Your task to perform on an android device: Find coffee shops on Maps Image 0: 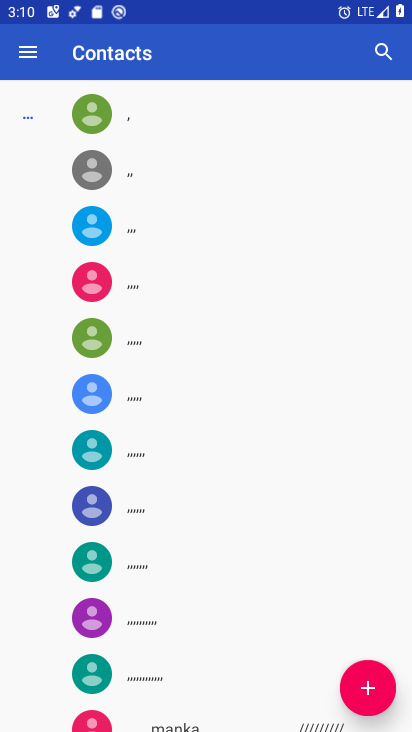
Step 0: press home button
Your task to perform on an android device: Find coffee shops on Maps Image 1: 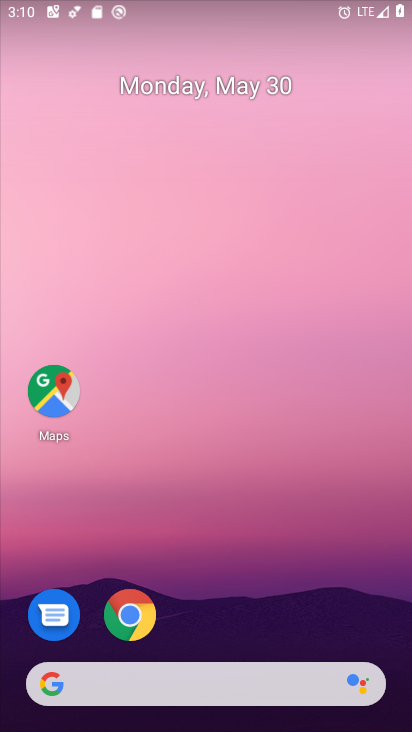
Step 1: click (51, 388)
Your task to perform on an android device: Find coffee shops on Maps Image 2: 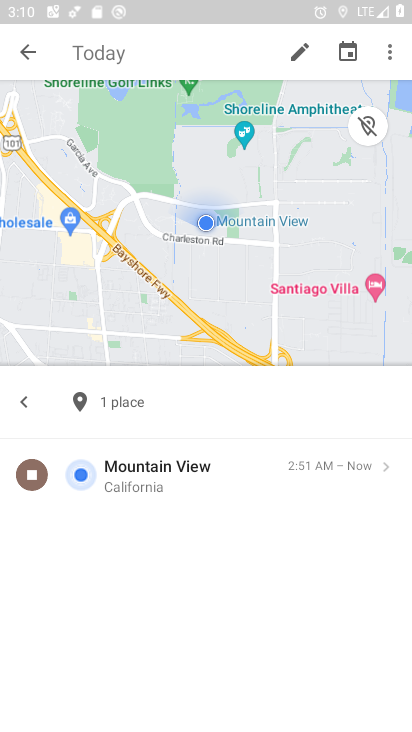
Step 2: click (31, 48)
Your task to perform on an android device: Find coffee shops on Maps Image 3: 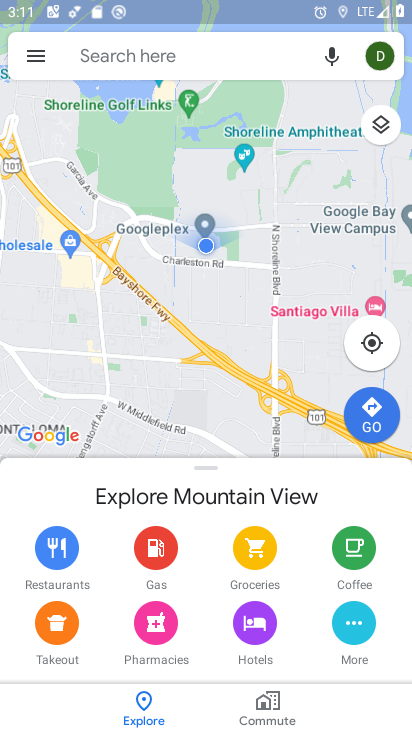
Step 3: click (240, 59)
Your task to perform on an android device: Find coffee shops on Maps Image 4: 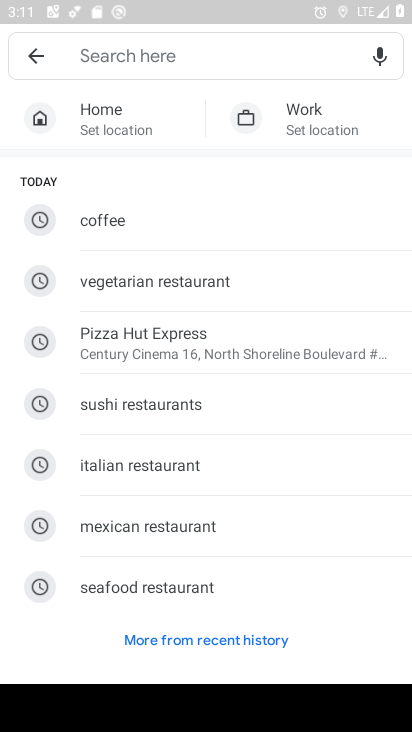
Step 4: click (143, 218)
Your task to perform on an android device: Find coffee shops on Maps Image 5: 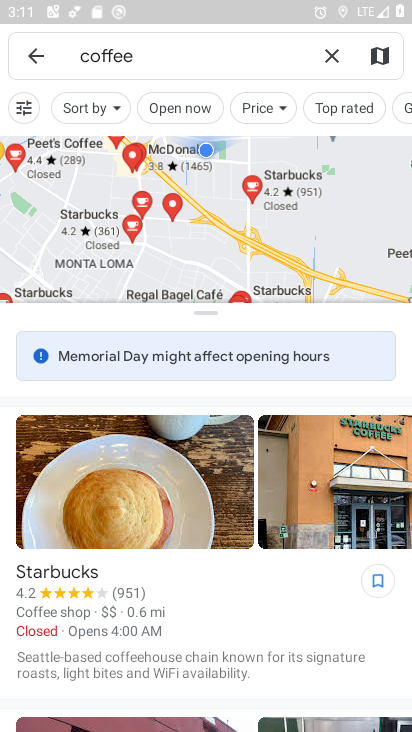
Step 5: task complete